Your task to perform on an android device: turn off smart reply in the gmail app Image 0: 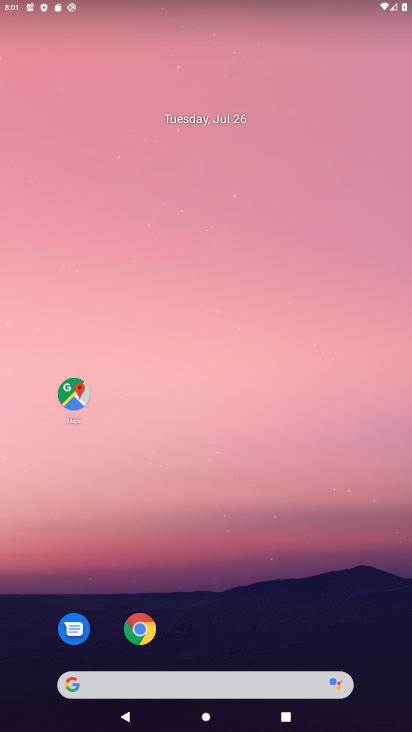
Step 0: drag from (221, 636) to (258, 137)
Your task to perform on an android device: turn off smart reply in the gmail app Image 1: 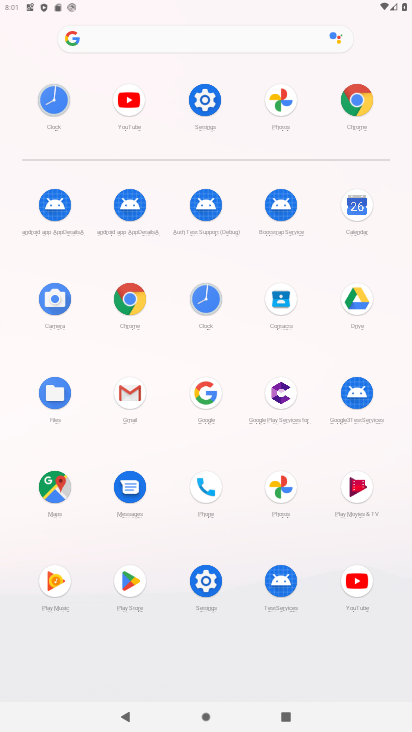
Step 1: click (130, 386)
Your task to perform on an android device: turn off smart reply in the gmail app Image 2: 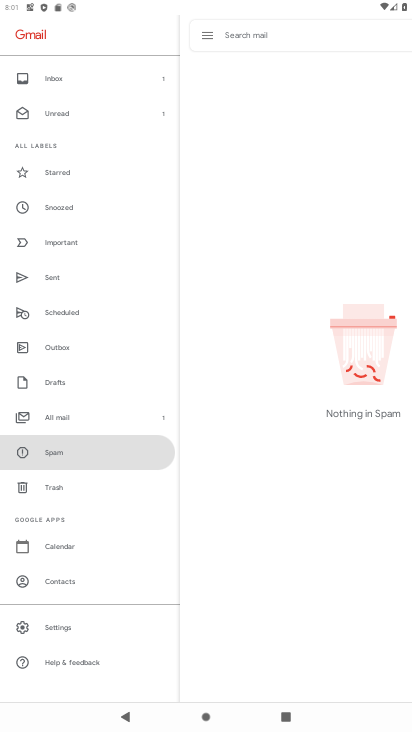
Step 2: click (50, 619)
Your task to perform on an android device: turn off smart reply in the gmail app Image 3: 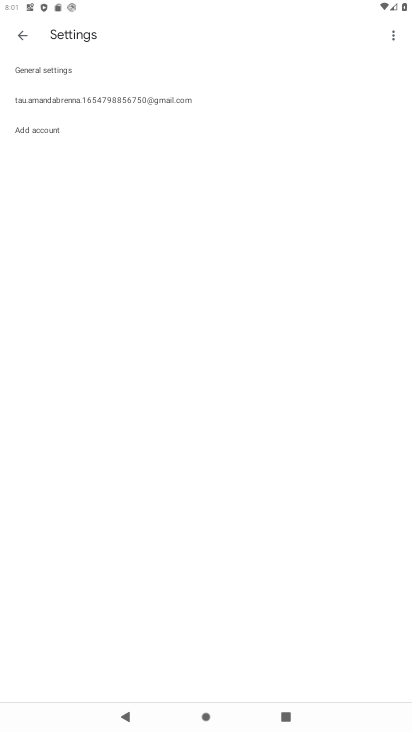
Step 3: click (89, 97)
Your task to perform on an android device: turn off smart reply in the gmail app Image 4: 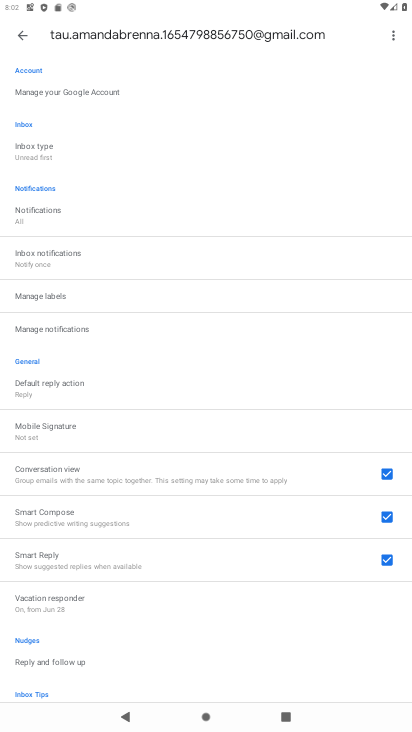
Step 4: click (384, 558)
Your task to perform on an android device: turn off smart reply in the gmail app Image 5: 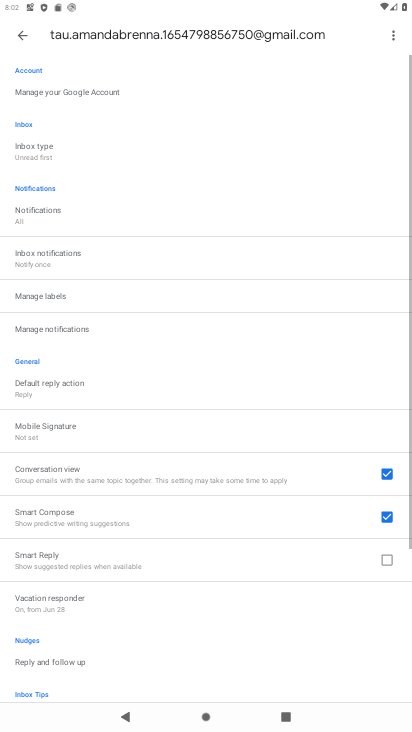
Step 5: task complete